Your task to perform on an android device: add a contact in the contacts app Image 0: 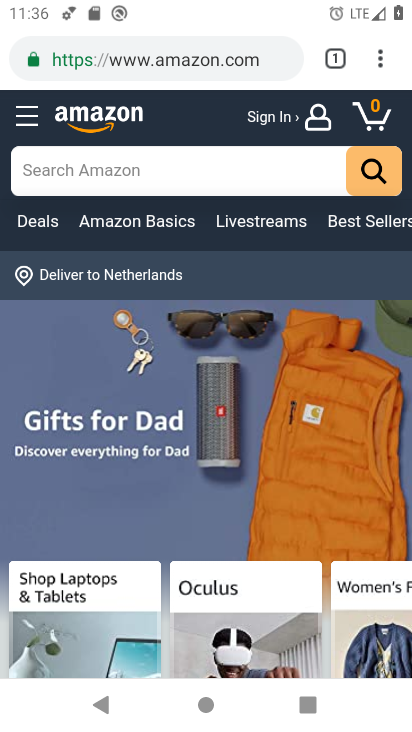
Step 0: press home button
Your task to perform on an android device: add a contact in the contacts app Image 1: 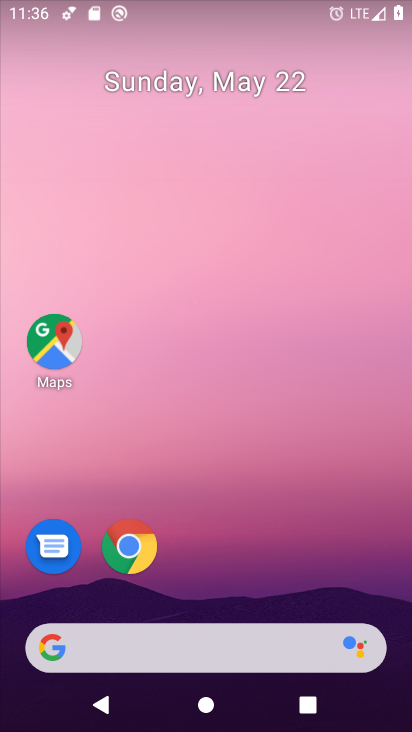
Step 1: drag from (271, 588) to (339, 118)
Your task to perform on an android device: add a contact in the contacts app Image 2: 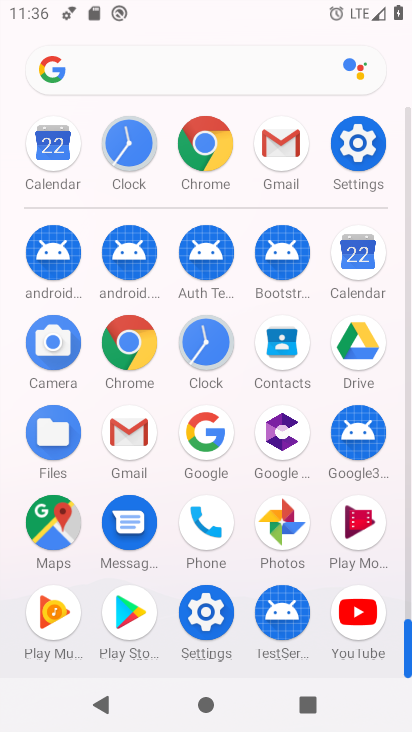
Step 2: click (294, 347)
Your task to perform on an android device: add a contact in the contacts app Image 3: 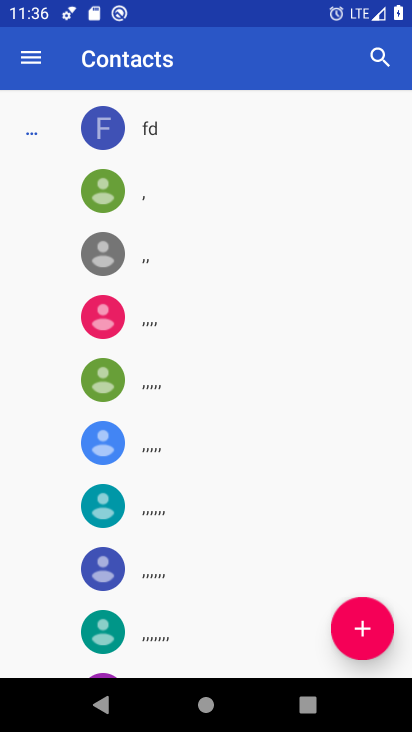
Step 3: click (354, 632)
Your task to perform on an android device: add a contact in the contacts app Image 4: 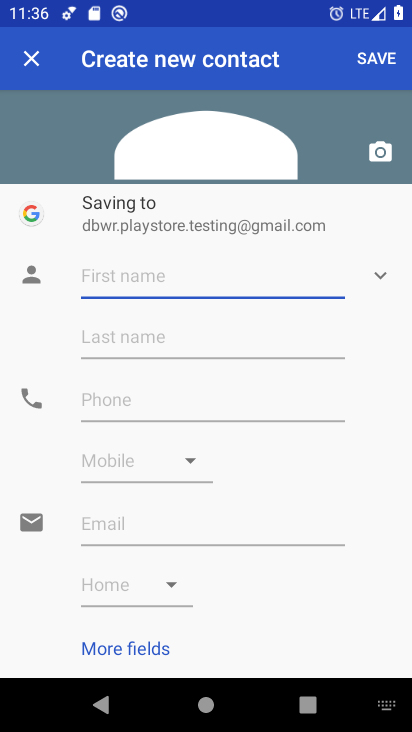
Step 4: type "hjhhhhgh"
Your task to perform on an android device: add a contact in the contacts app Image 5: 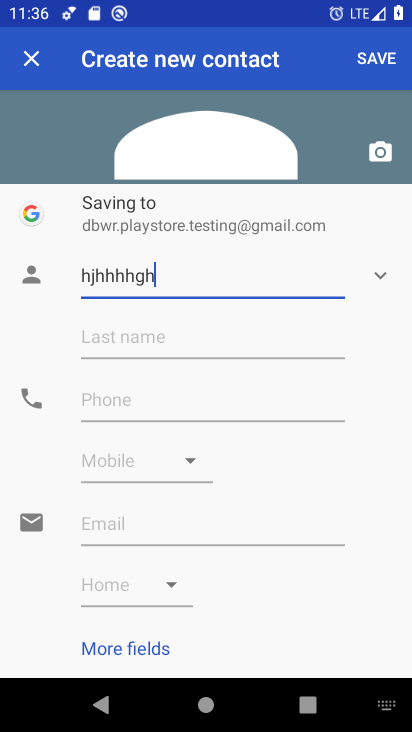
Step 5: click (148, 405)
Your task to perform on an android device: add a contact in the contacts app Image 6: 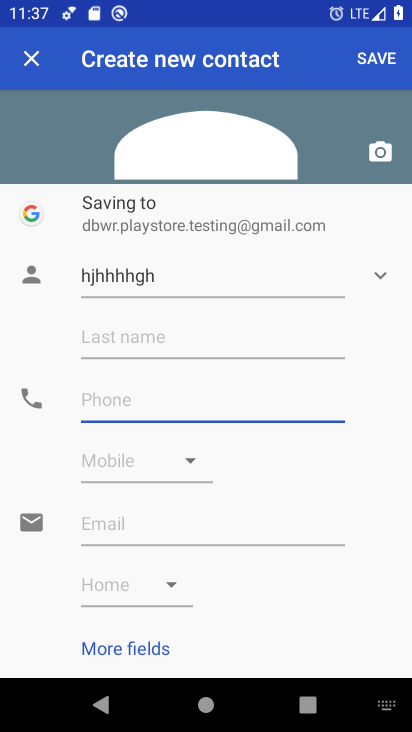
Step 6: type "98987677878"
Your task to perform on an android device: add a contact in the contacts app Image 7: 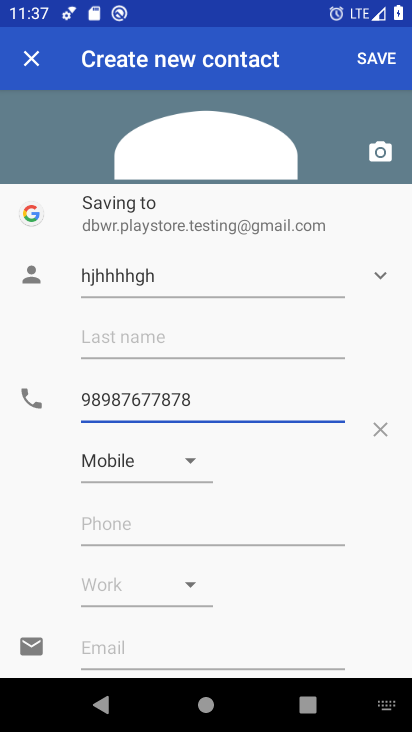
Step 7: click (383, 56)
Your task to perform on an android device: add a contact in the contacts app Image 8: 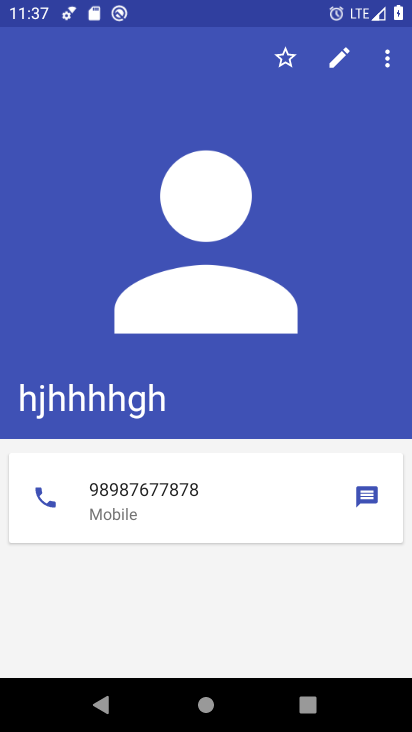
Step 8: task complete